Your task to perform on an android device: check out phone information Image 0: 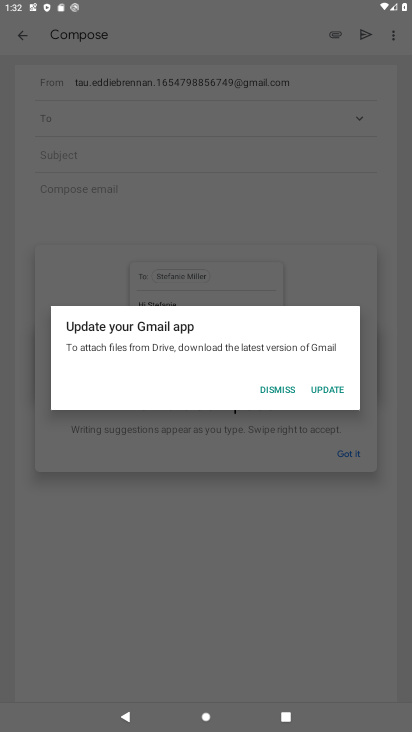
Step 0: press home button
Your task to perform on an android device: check out phone information Image 1: 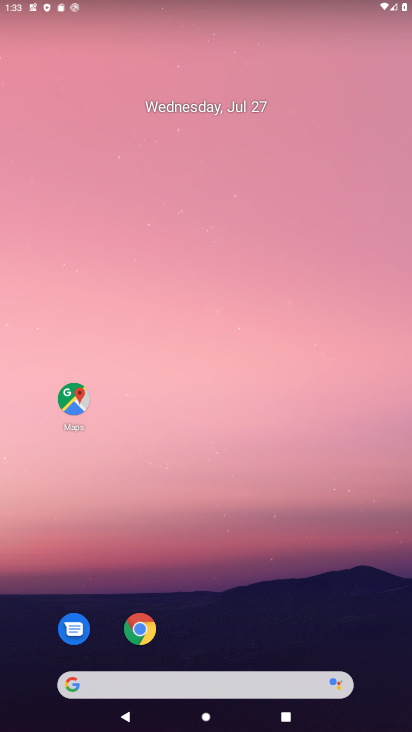
Step 1: drag from (303, 635) to (279, 50)
Your task to perform on an android device: check out phone information Image 2: 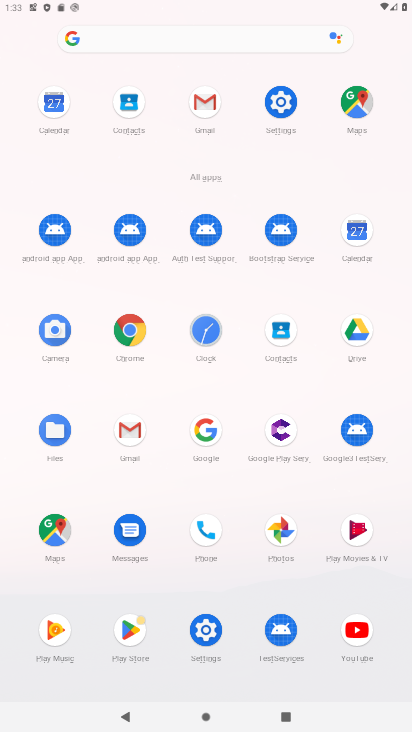
Step 2: click (210, 615)
Your task to perform on an android device: check out phone information Image 3: 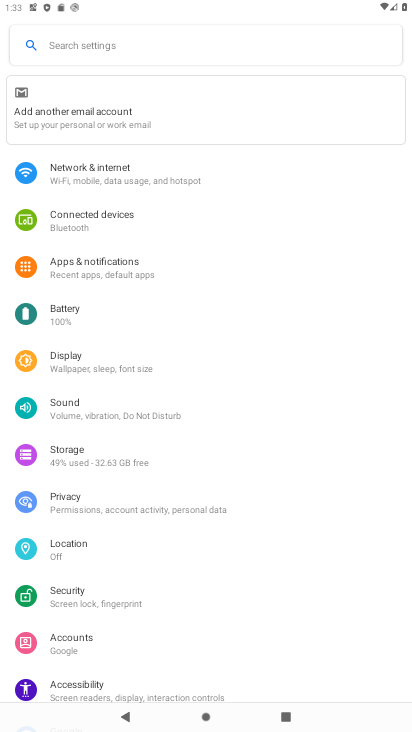
Step 3: drag from (213, 645) to (215, 164)
Your task to perform on an android device: check out phone information Image 4: 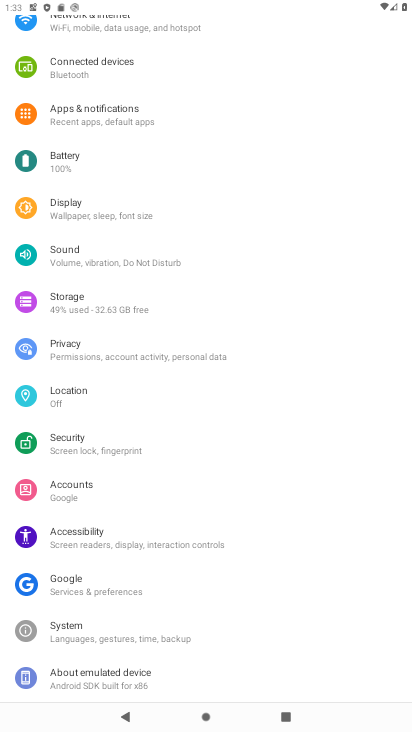
Step 4: click (145, 678)
Your task to perform on an android device: check out phone information Image 5: 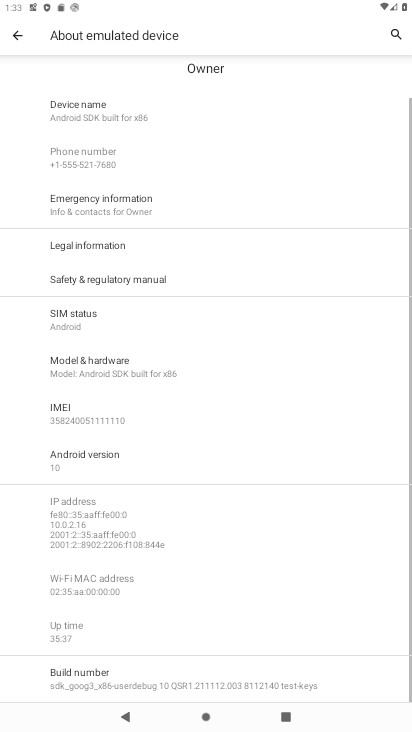
Step 5: task complete